Your task to perform on an android device: change keyboard looks Image 0: 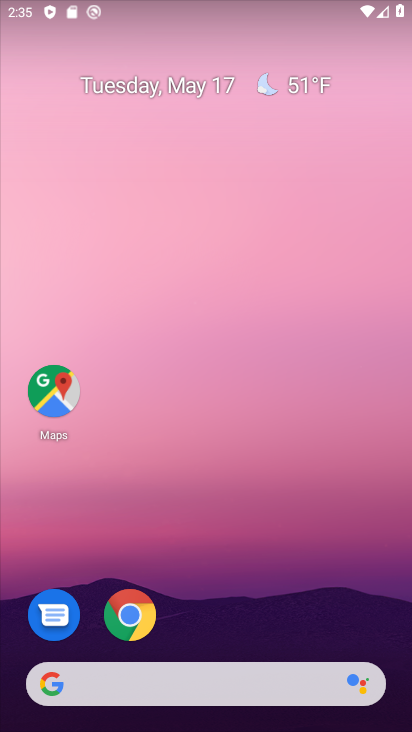
Step 0: press home button
Your task to perform on an android device: change keyboard looks Image 1: 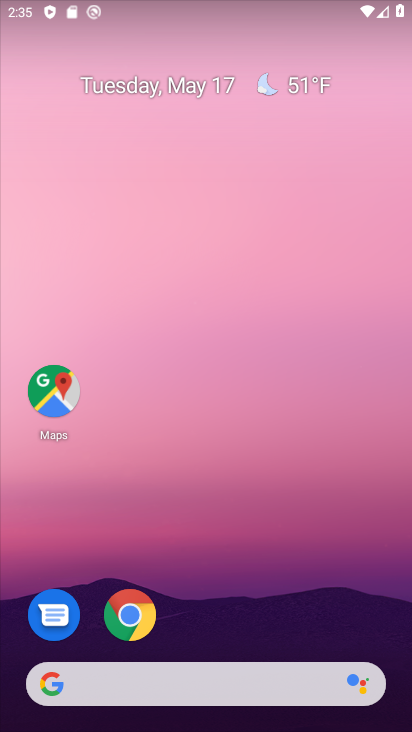
Step 1: drag from (213, 637) to (241, 268)
Your task to perform on an android device: change keyboard looks Image 2: 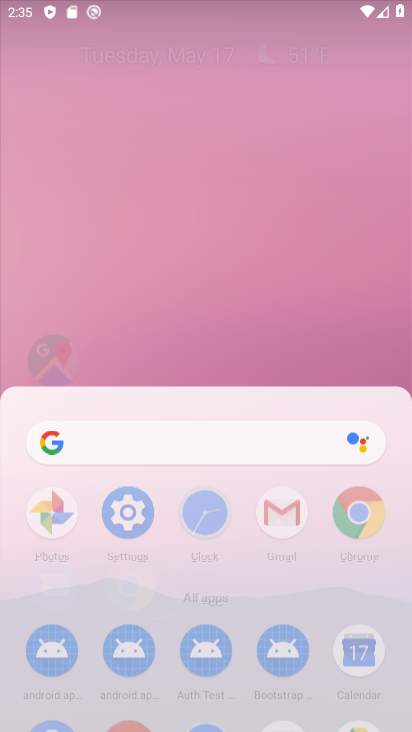
Step 2: click (243, 38)
Your task to perform on an android device: change keyboard looks Image 3: 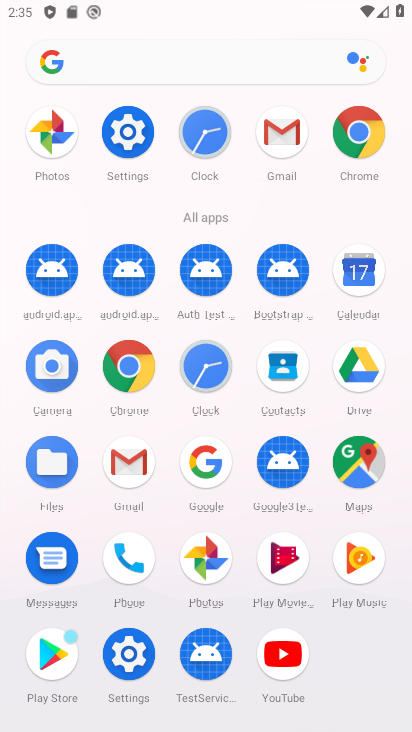
Step 3: click (128, 647)
Your task to perform on an android device: change keyboard looks Image 4: 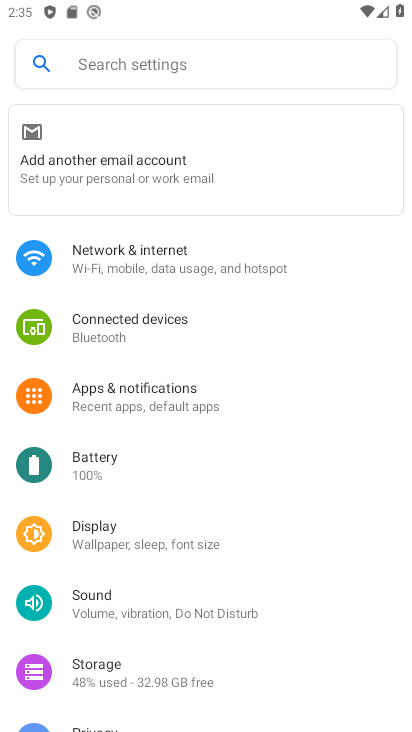
Step 4: drag from (160, 657) to (228, 361)
Your task to perform on an android device: change keyboard looks Image 5: 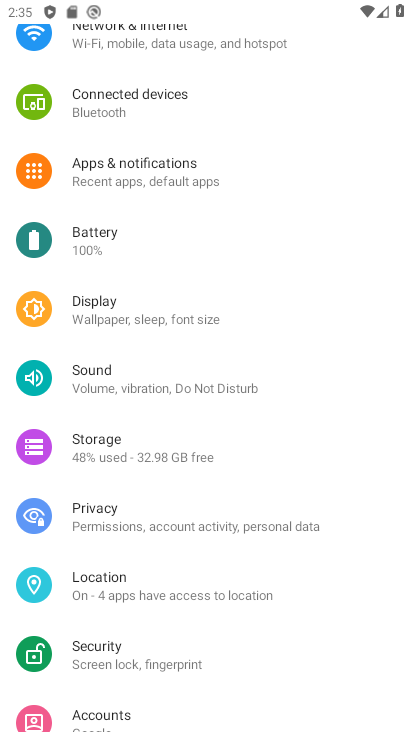
Step 5: click (246, 196)
Your task to perform on an android device: change keyboard looks Image 6: 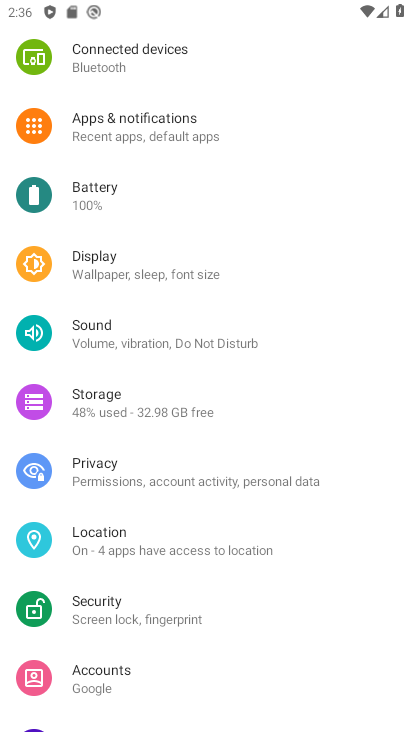
Step 6: drag from (147, 686) to (198, 246)
Your task to perform on an android device: change keyboard looks Image 7: 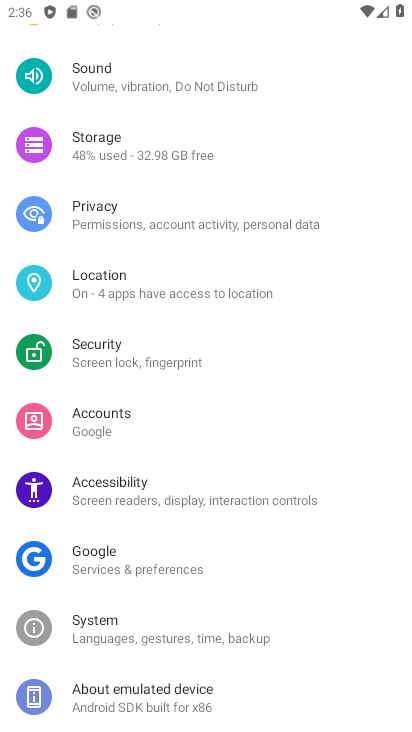
Step 7: click (130, 621)
Your task to perform on an android device: change keyboard looks Image 8: 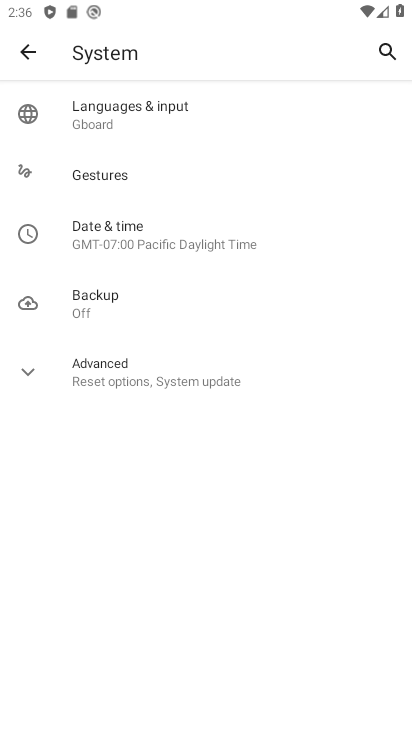
Step 8: click (31, 369)
Your task to perform on an android device: change keyboard looks Image 9: 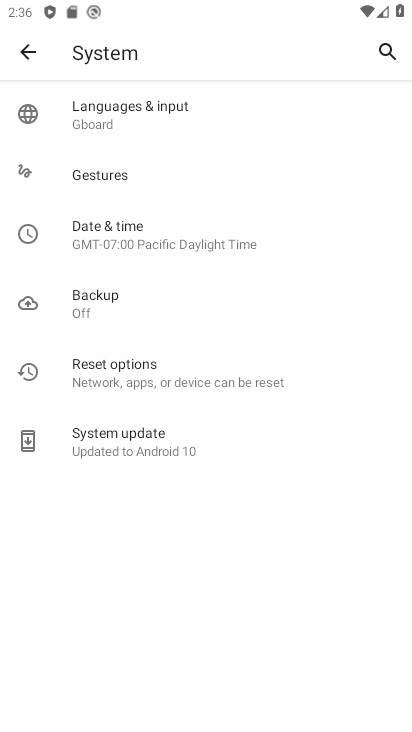
Step 9: click (100, 118)
Your task to perform on an android device: change keyboard looks Image 10: 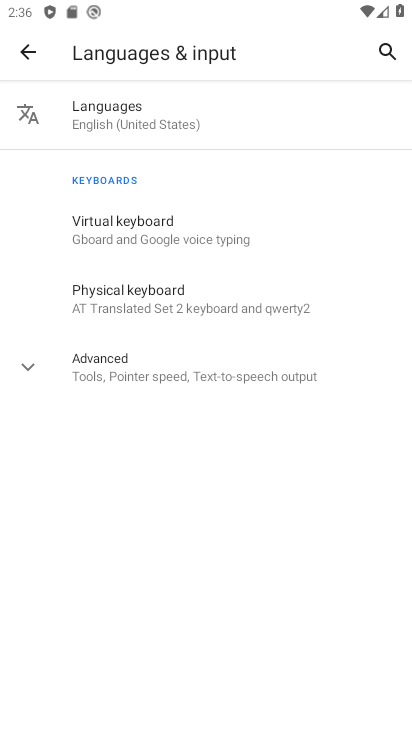
Step 10: click (182, 221)
Your task to perform on an android device: change keyboard looks Image 11: 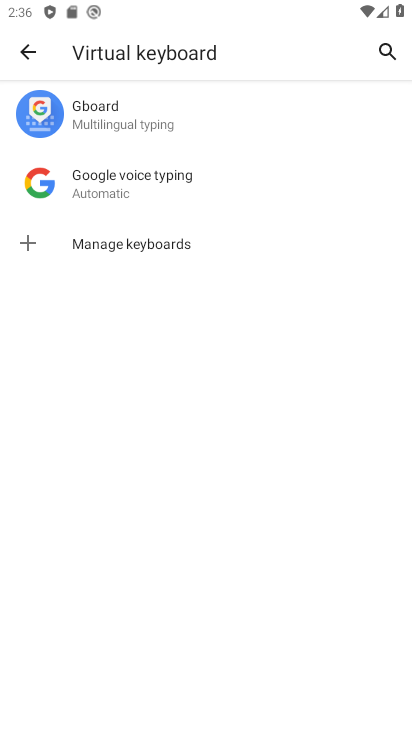
Step 11: click (139, 109)
Your task to perform on an android device: change keyboard looks Image 12: 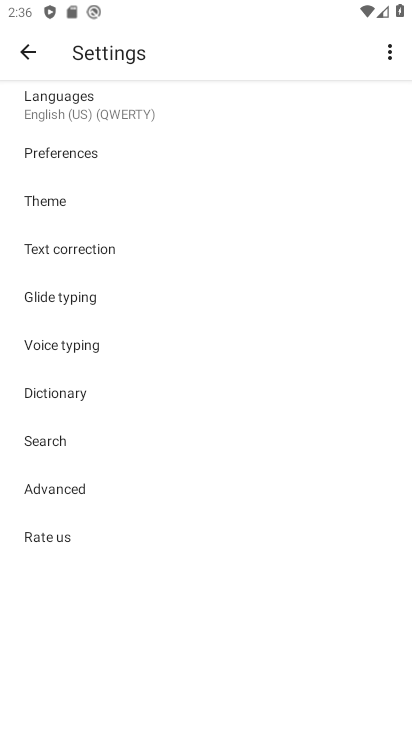
Step 12: click (88, 201)
Your task to perform on an android device: change keyboard looks Image 13: 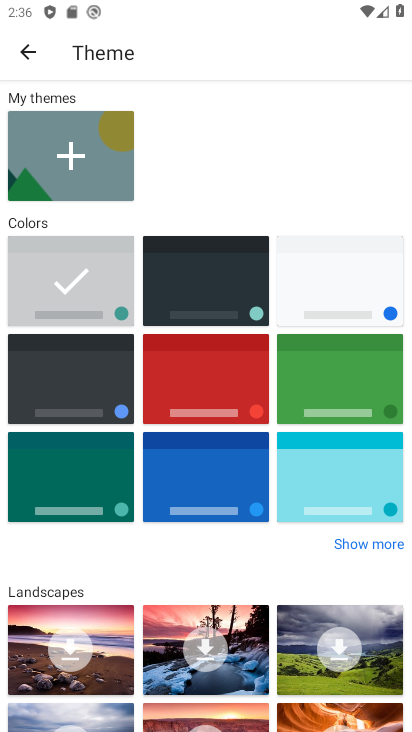
Step 13: click (331, 393)
Your task to perform on an android device: change keyboard looks Image 14: 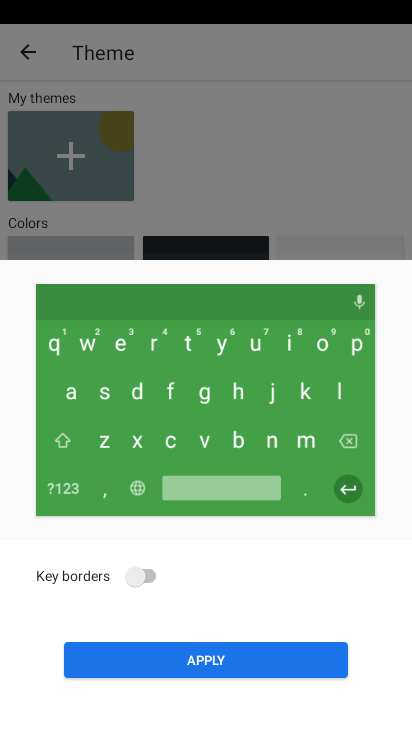
Step 14: click (200, 659)
Your task to perform on an android device: change keyboard looks Image 15: 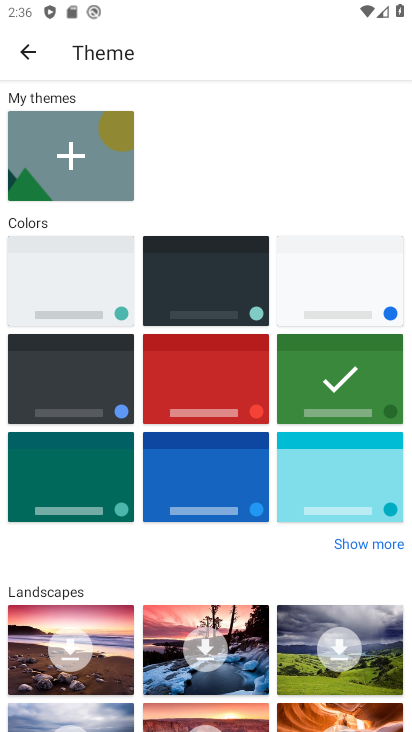
Step 15: task complete